Your task to perform on an android device: change the upload size in google photos Image 0: 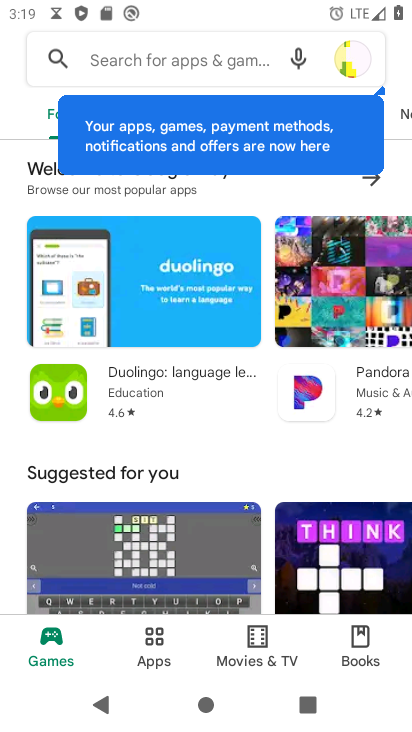
Step 0: press home button
Your task to perform on an android device: change the upload size in google photos Image 1: 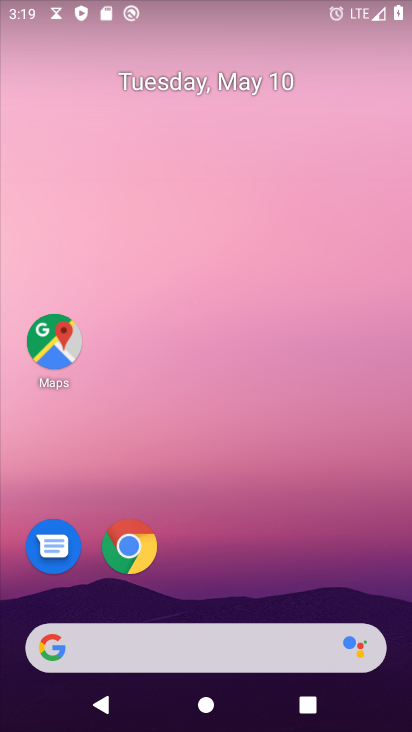
Step 1: drag from (231, 587) to (337, 4)
Your task to perform on an android device: change the upload size in google photos Image 2: 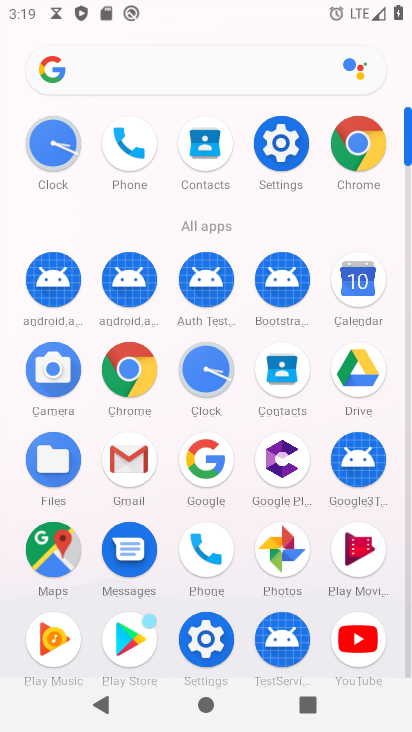
Step 2: click (281, 569)
Your task to perform on an android device: change the upload size in google photos Image 3: 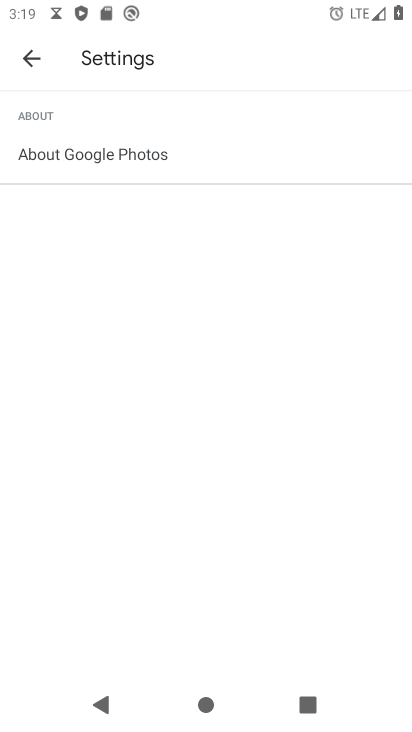
Step 3: click (45, 58)
Your task to perform on an android device: change the upload size in google photos Image 4: 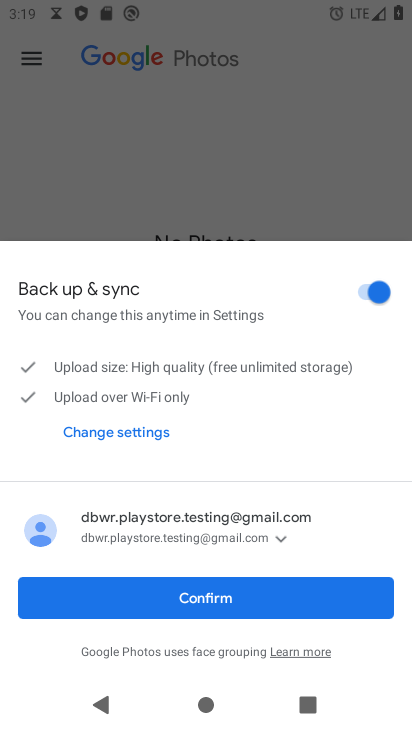
Step 4: click (205, 578)
Your task to perform on an android device: change the upload size in google photos Image 5: 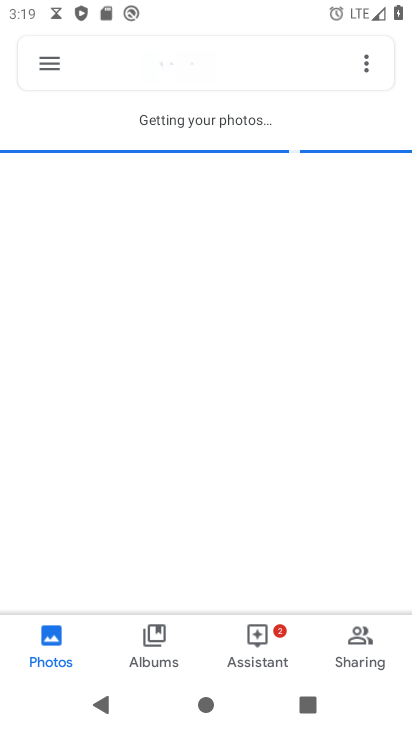
Step 5: click (46, 68)
Your task to perform on an android device: change the upload size in google photos Image 6: 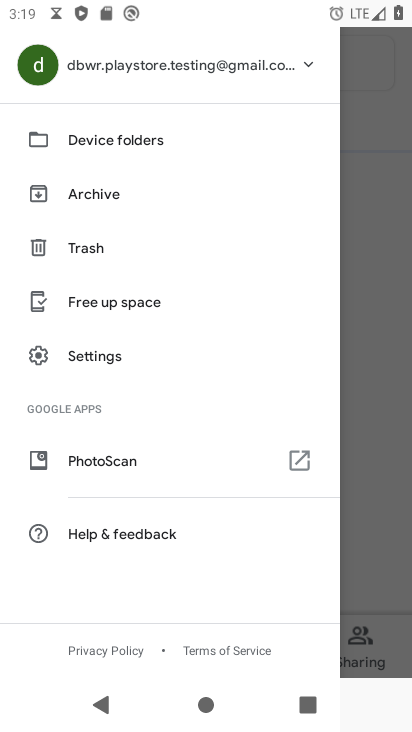
Step 6: click (109, 368)
Your task to perform on an android device: change the upload size in google photos Image 7: 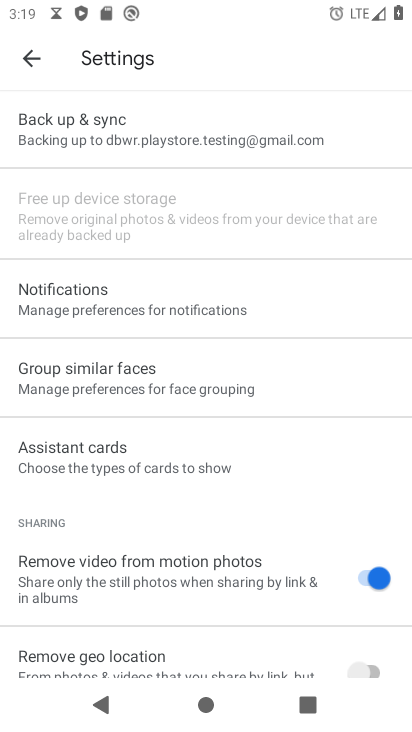
Step 7: click (141, 140)
Your task to perform on an android device: change the upload size in google photos Image 8: 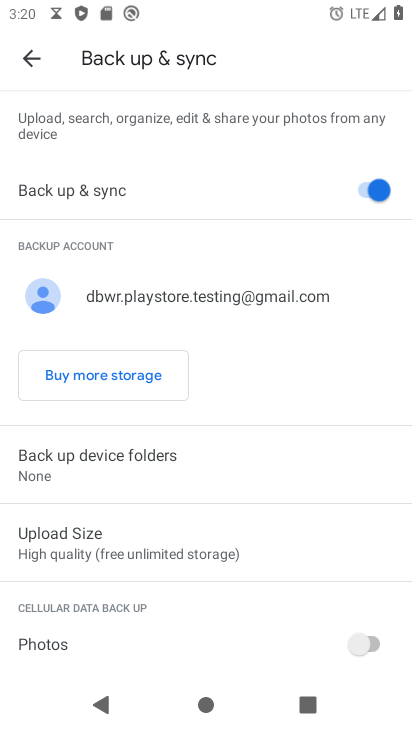
Step 8: click (149, 546)
Your task to perform on an android device: change the upload size in google photos Image 9: 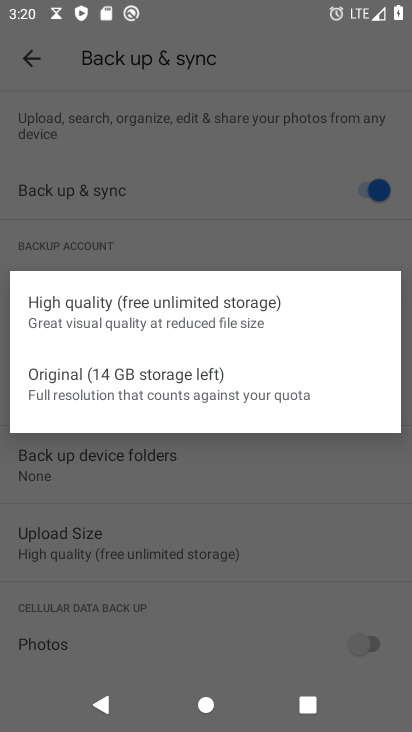
Step 9: click (104, 396)
Your task to perform on an android device: change the upload size in google photos Image 10: 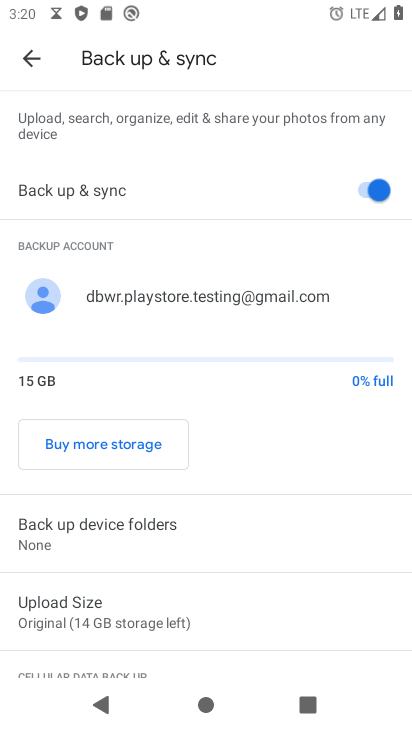
Step 10: task complete